Your task to perform on an android device: install app "Indeed Job Search" Image 0: 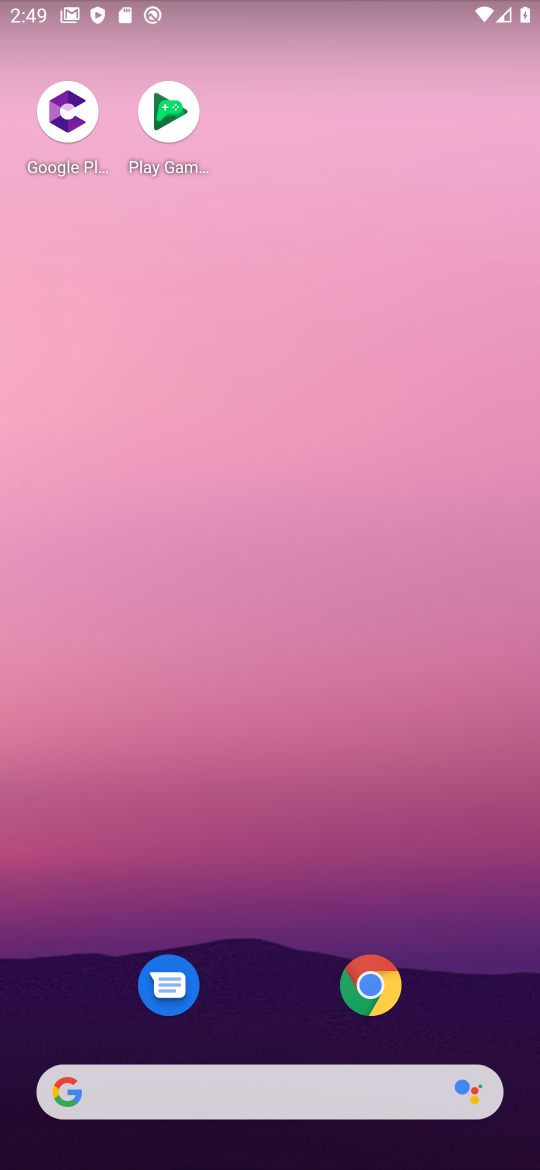
Step 0: click (313, 26)
Your task to perform on an android device: install app "Indeed Job Search" Image 1: 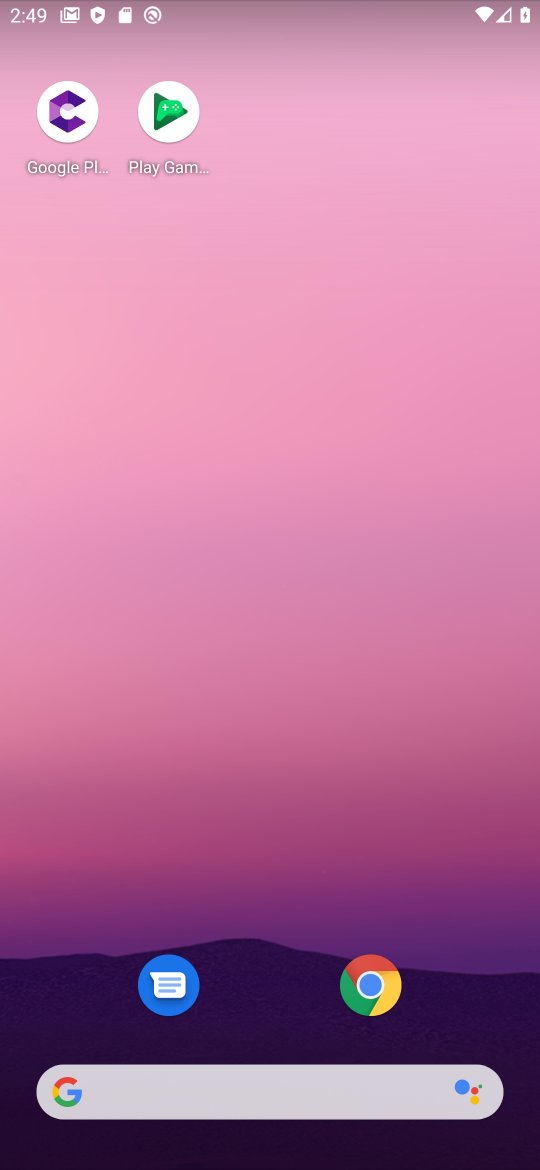
Step 1: drag from (258, 997) to (334, 10)
Your task to perform on an android device: install app "Indeed Job Search" Image 2: 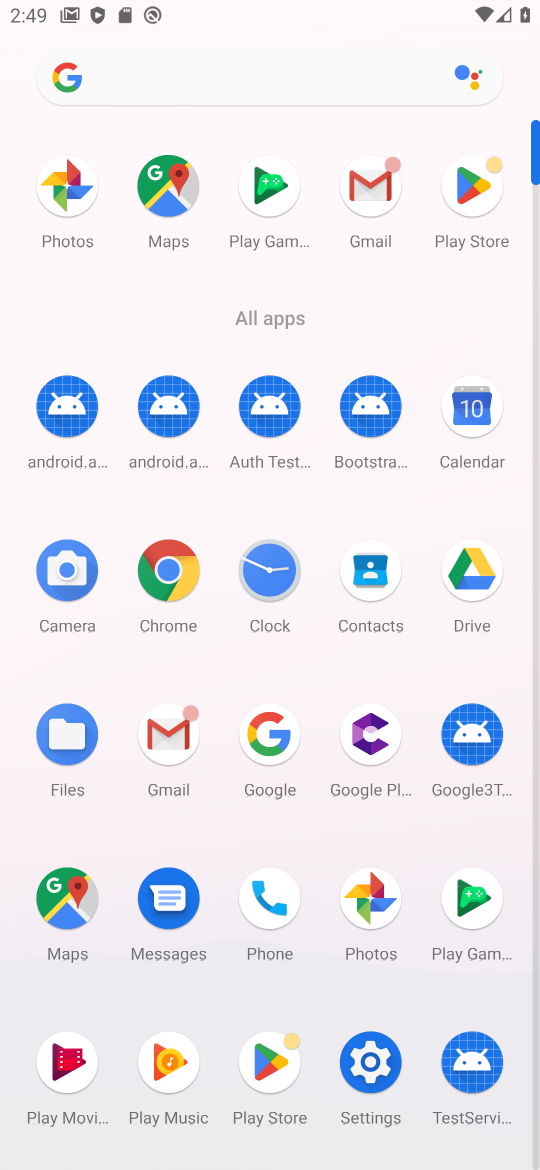
Step 2: click (464, 215)
Your task to perform on an android device: install app "Indeed Job Search" Image 3: 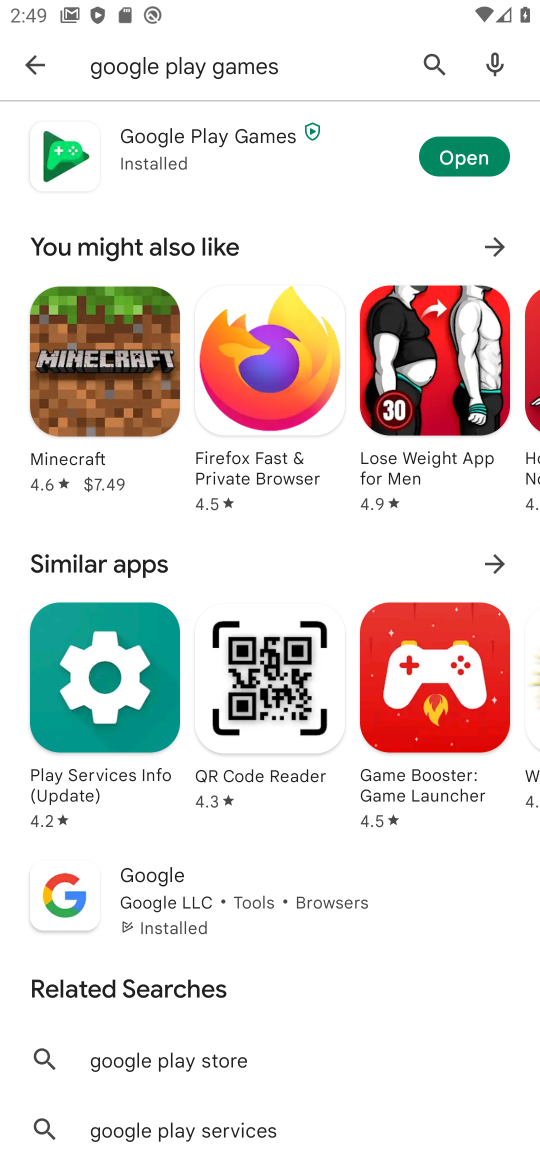
Step 3: click (43, 61)
Your task to perform on an android device: install app "Indeed Job Search" Image 4: 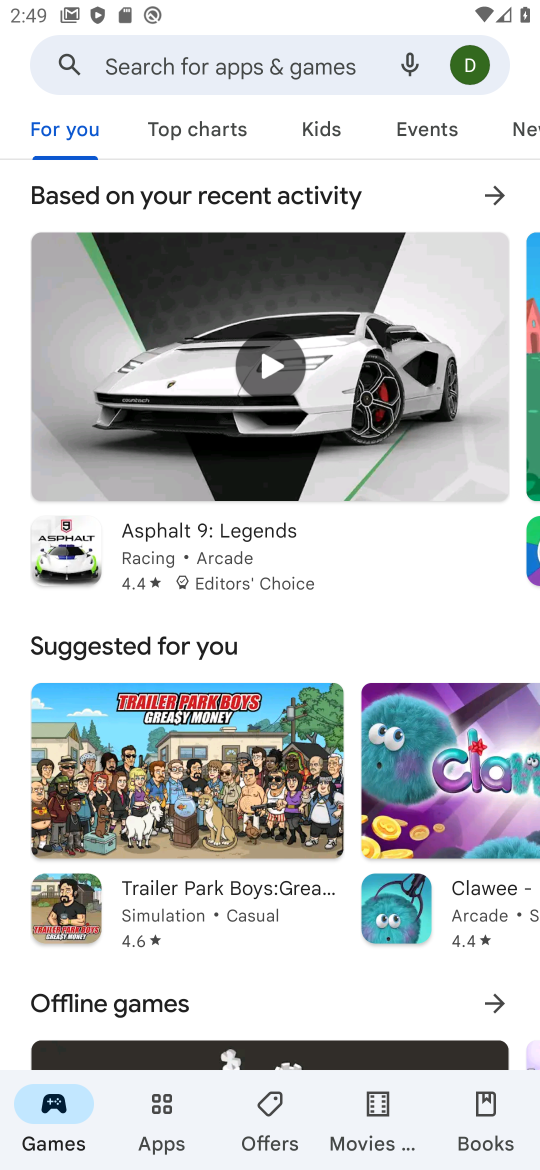
Step 4: click (167, 1123)
Your task to perform on an android device: install app "Indeed Job Search" Image 5: 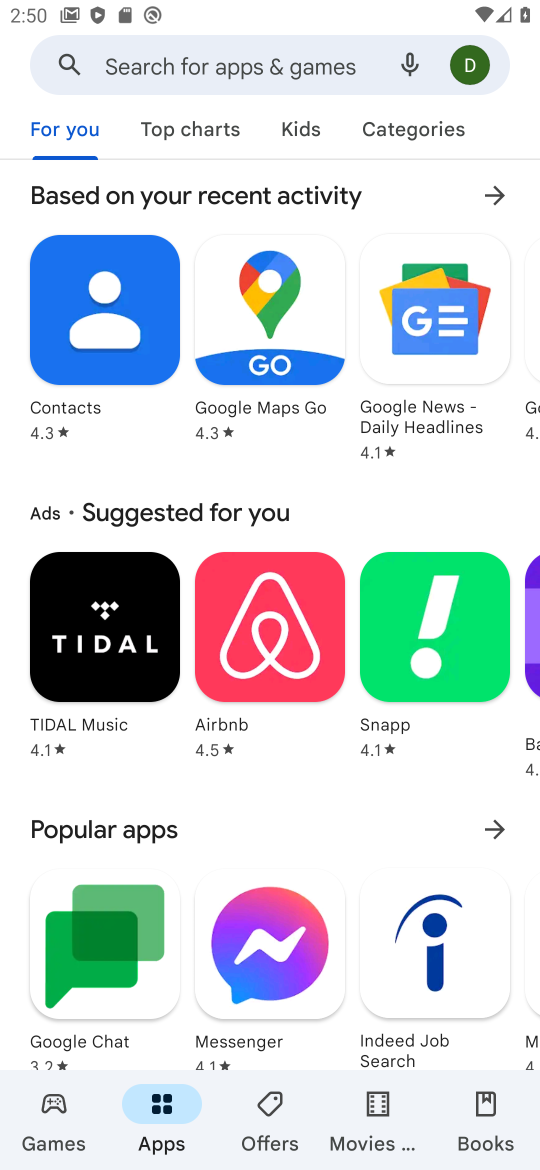
Step 5: click (370, 67)
Your task to perform on an android device: install app "Indeed Job Search" Image 6: 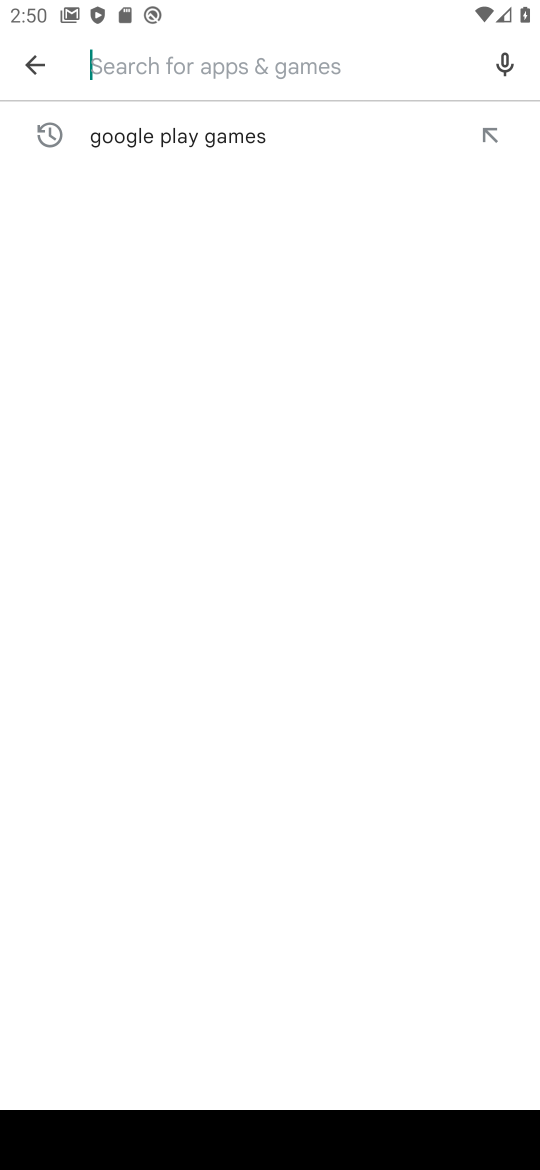
Step 6: type "Indeed Job Search"
Your task to perform on an android device: install app "Indeed Job Search" Image 7: 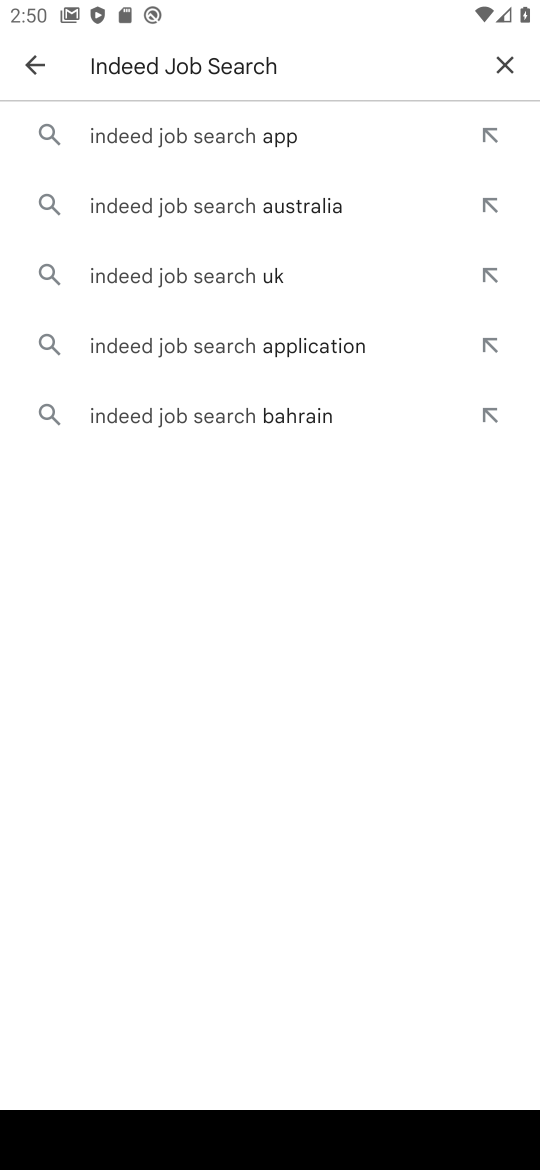
Step 7: click (268, 138)
Your task to perform on an android device: install app "Indeed Job Search" Image 8: 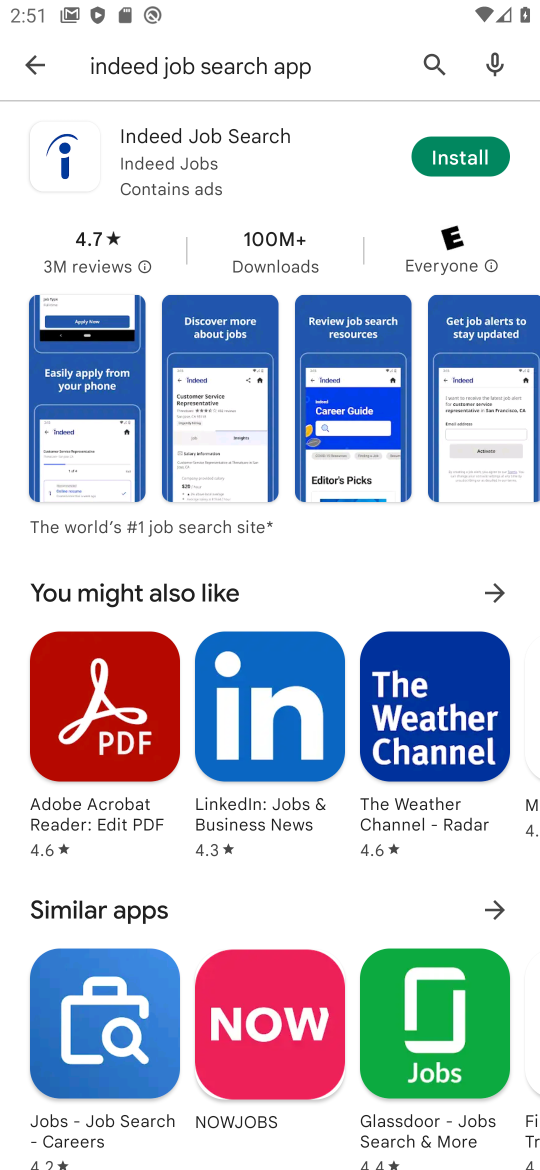
Step 8: click (468, 158)
Your task to perform on an android device: install app "Indeed Job Search" Image 9: 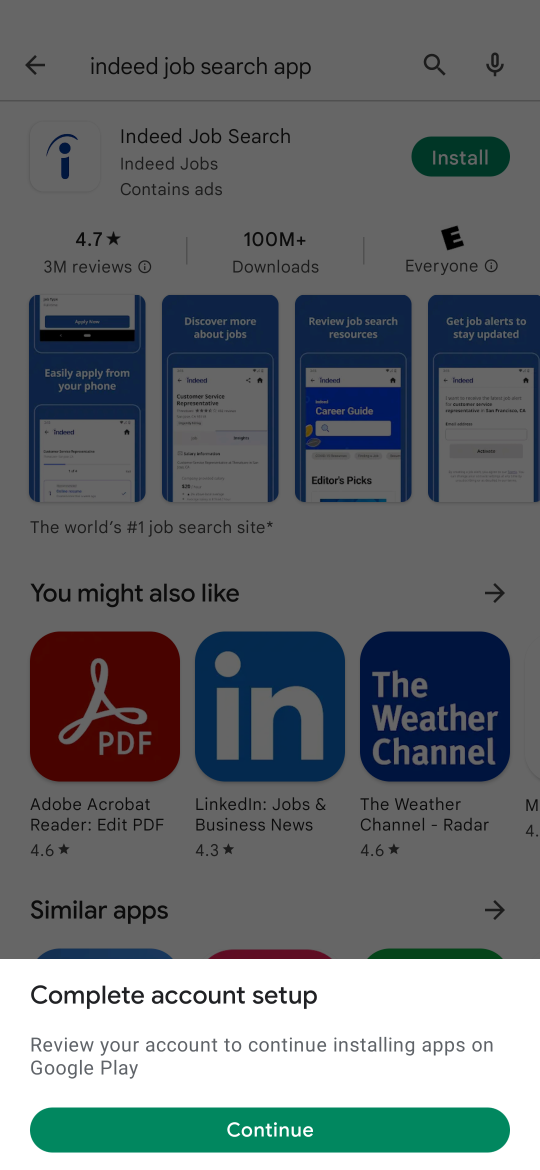
Step 9: click (314, 1132)
Your task to perform on an android device: install app "Indeed Job Search" Image 10: 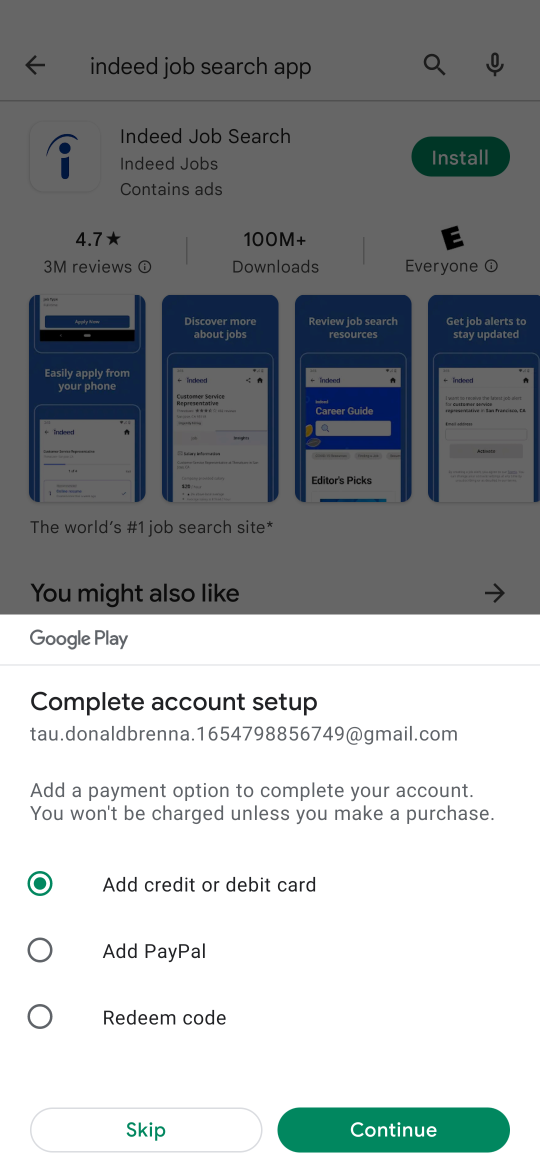
Step 10: click (157, 1123)
Your task to perform on an android device: install app "Indeed Job Search" Image 11: 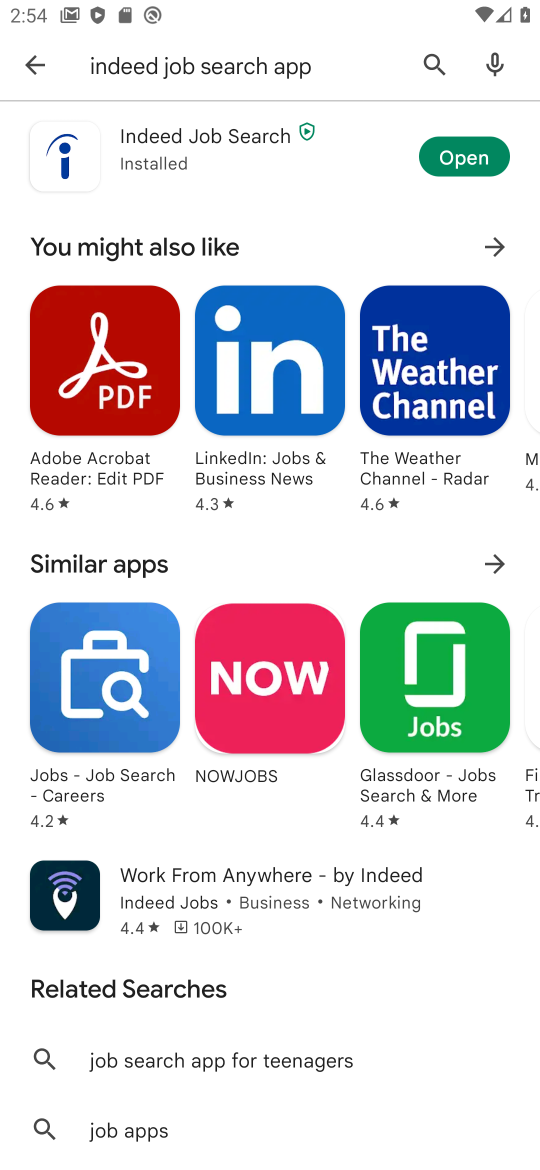
Step 11: task complete